Your task to perform on an android device: visit the assistant section in the google photos Image 0: 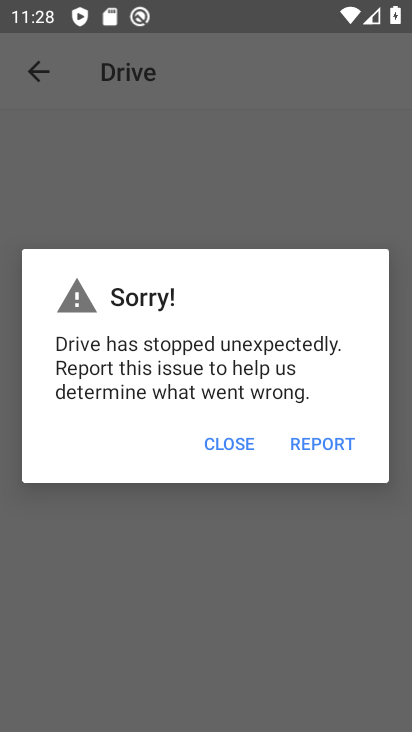
Step 0: press home button
Your task to perform on an android device: visit the assistant section in the google photos Image 1: 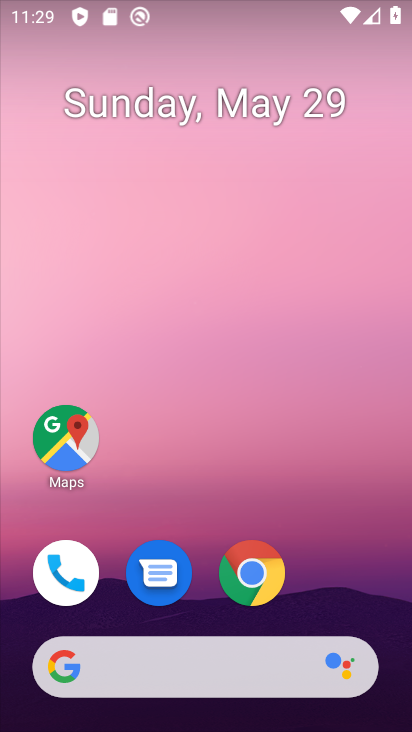
Step 1: drag from (347, 560) to (320, 85)
Your task to perform on an android device: visit the assistant section in the google photos Image 2: 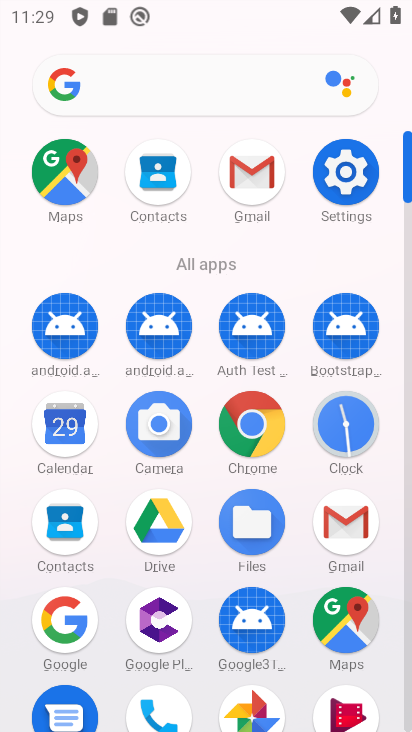
Step 2: drag from (197, 687) to (206, 433)
Your task to perform on an android device: visit the assistant section in the google photos Image 3: 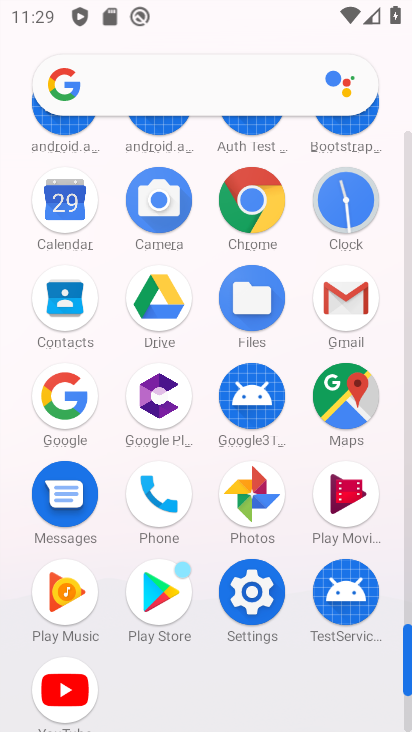
Step 3: click (265, 502)
Your task to perform on an android device: visit the assistant section in the google photos Image 4: 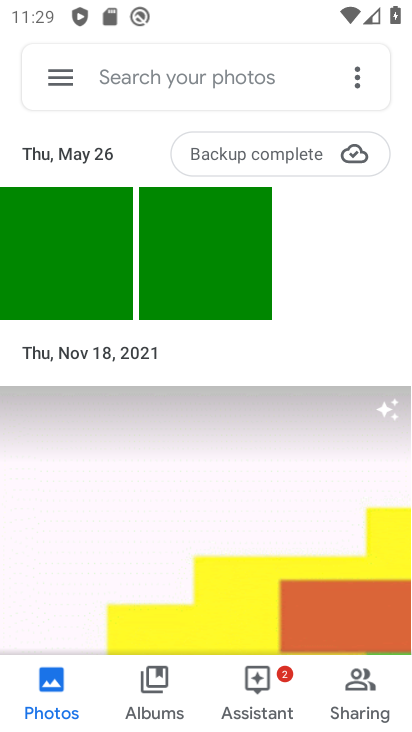
Step 4: click (252, 673)
Your task to perform on an android device: visit the assistant section in the google photos Image 5: 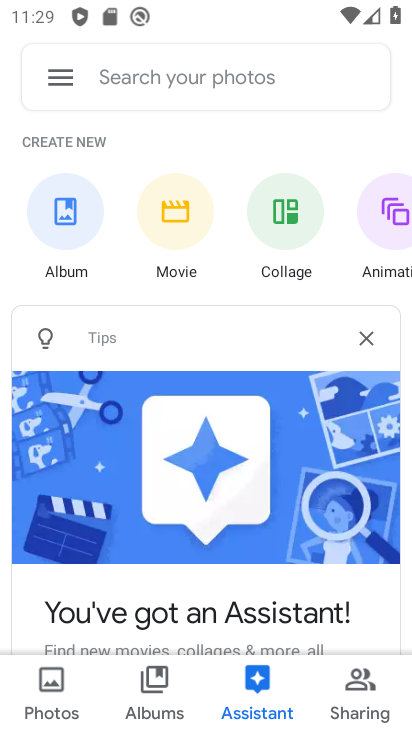
Step 5: task complete